Your task to perform on an android device: Open the phone app and click the voicemail tab. Image 0: 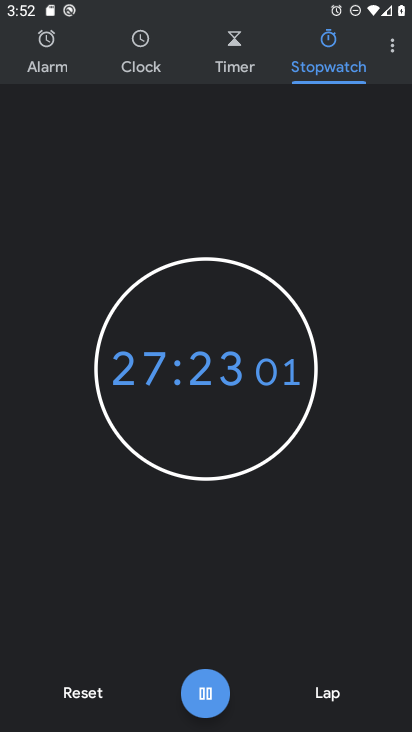
Step 0: press home button
Your task to perform on an android device: Open the phone app and click the voicemail tab. Image 1: 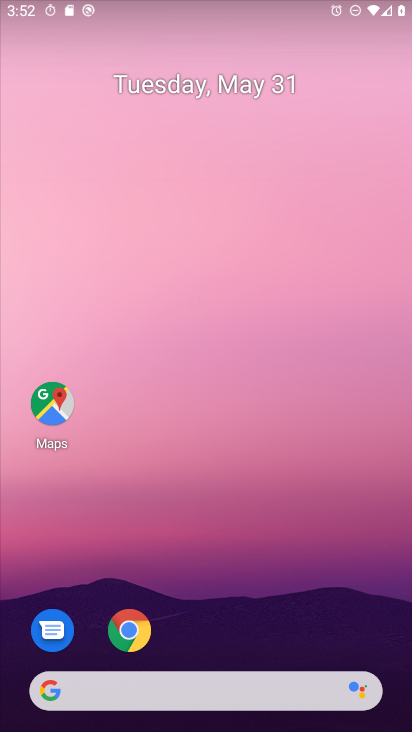
Step 1: drag from (326, 645) to (353, 35)
Your task to perform on an android device: Open the phone app and click the voicemail tab. Image 2: 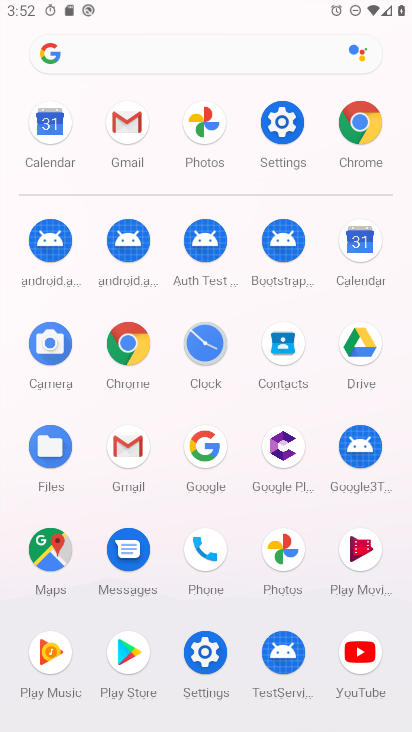
Step 2: click (354, 563)
Your task to perform on an android device: Open the phone app and click the voicemail tab. Image 3: 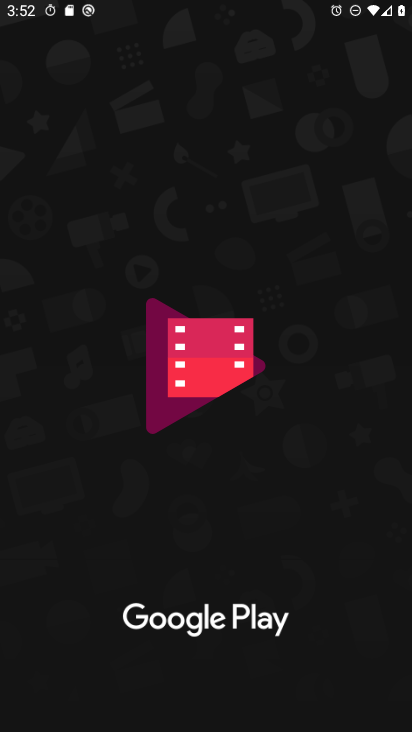
Step 3: press home button
Your task to perform on an android device: Open the phone app and click the voicemail tab. Image 4: 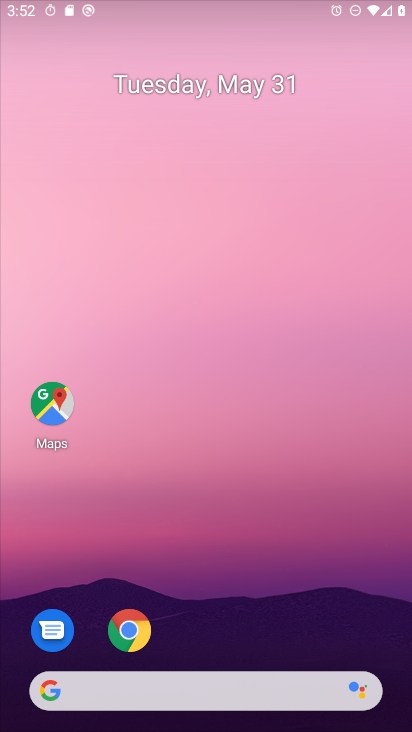
Step 4: drag from (323, 505) to (402, 642)
Your task to perform on an android device: Open the phone app and click the voicemail tab. Image 5: 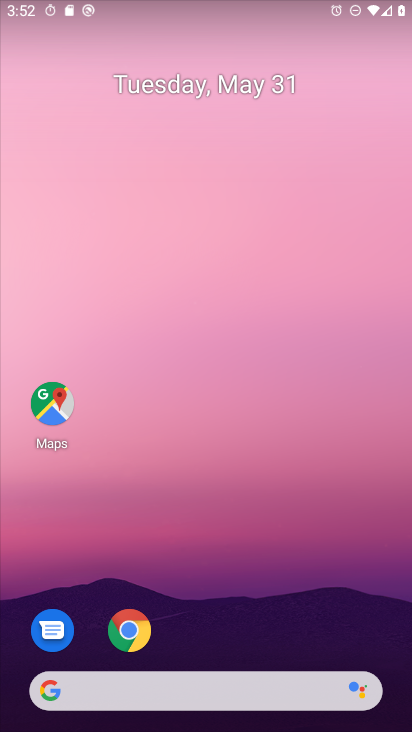
Step 5: drag from (260, 669) to (318, 52)
Your task to perform on an android device: Open the phone app and click the voicemail tab. Image 6: 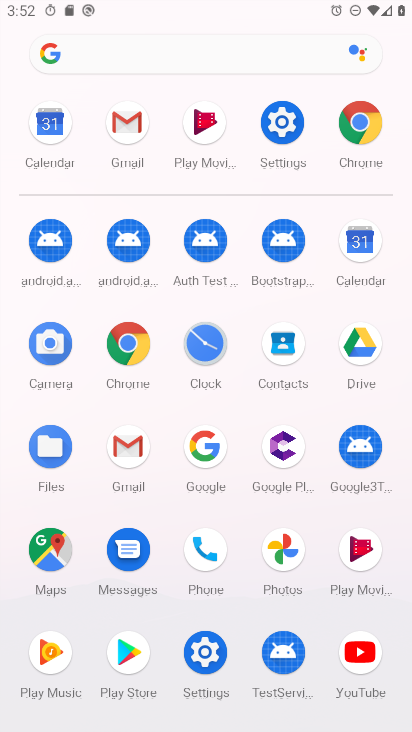
Step 6: click (199, 558)
Your task to perform on an android device: Open the phone app and click the voicemail tab. Image 7: 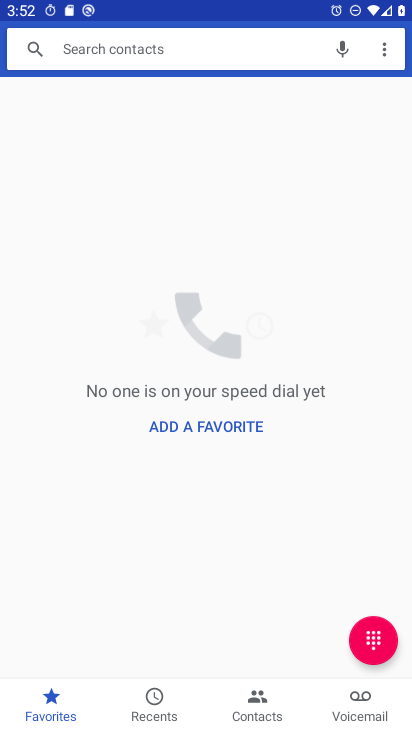
Step 7: click (341, 714)
Your task to perform on an android device: Open the phone app and click the voicemail tab. Image 8: 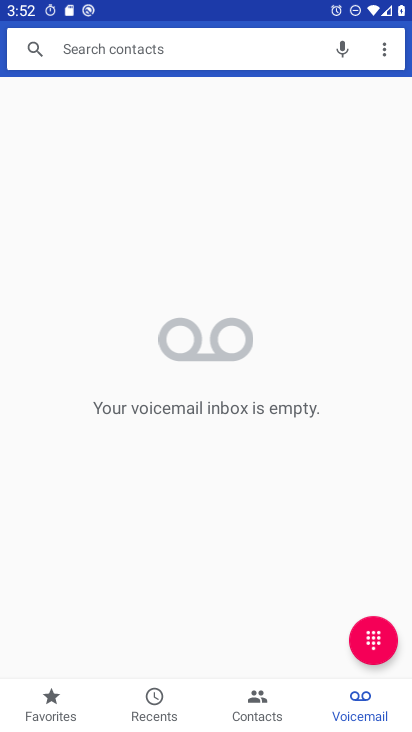
Step 8: task complete